Your task to perform on an android device: Is it going to rain tomorrow? Image 0: 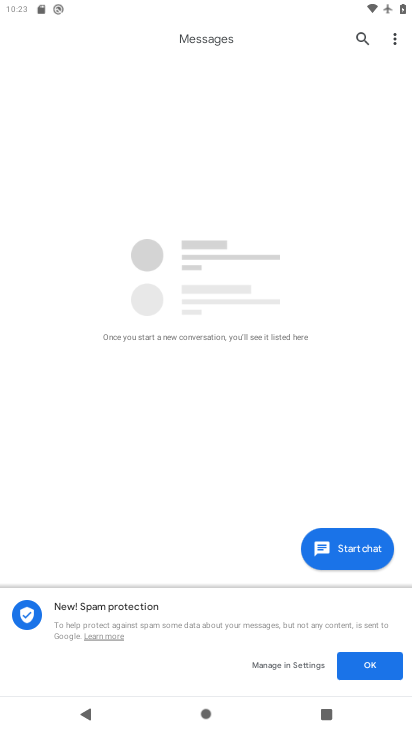
Step 0: press home button
Your task to perform on an android device: Is it going to rain tomorrow? Image 1: 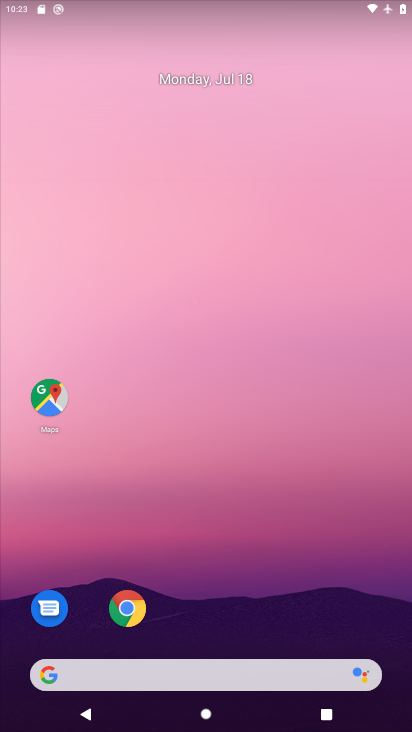
Step 1: drag from (209, 639) to (214, 29)
Your task to perform on an android device: Is it going to rain tomorrow? Image 2: 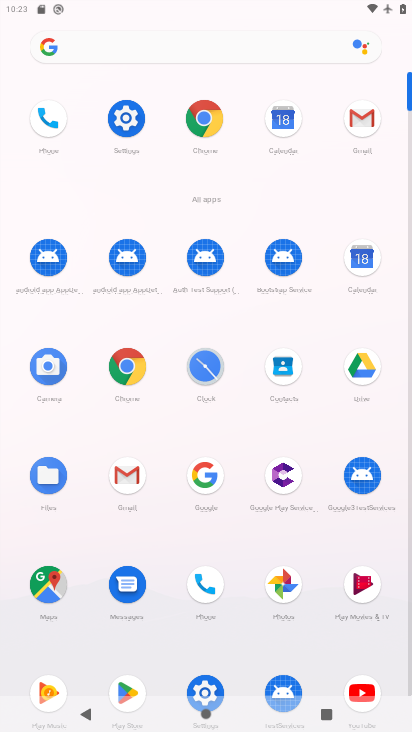
Step 2: click (356, 262)
Your task to perform on an android device: Is it going to rain tomorrow? Image 3: 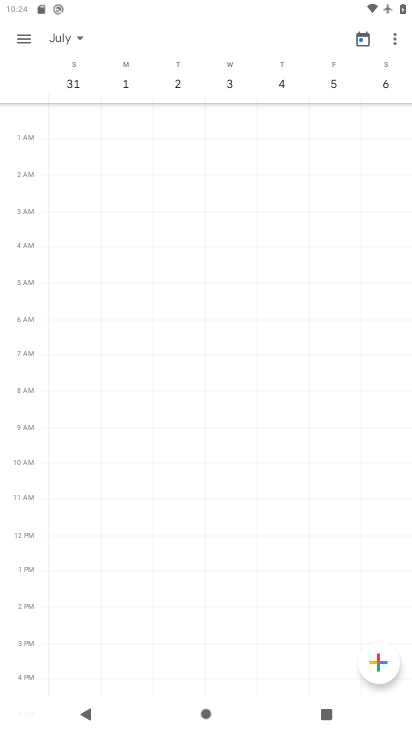
Step 3: click (367, 33)
Your task to perform on an android device: Is it going to rain tomorrow? Image 4: 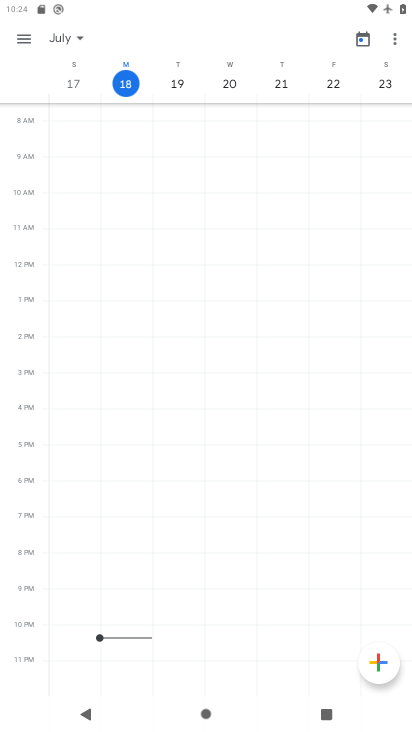
Step 4: click (174, 79)
Your task to perform on an android device: Is it going to rain tomorrow? Image 5: 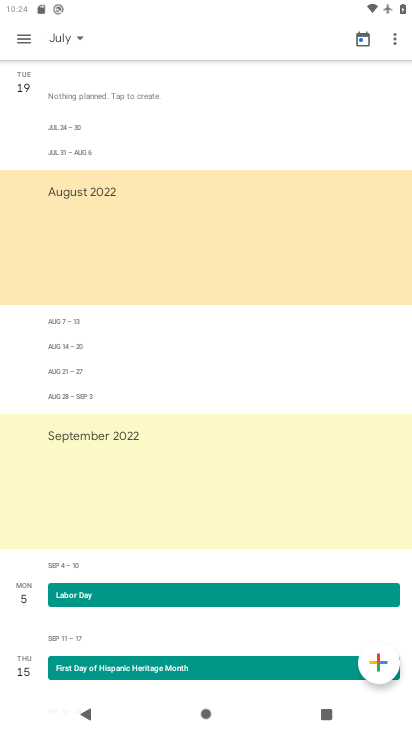
Step 5: task complete